Your task to perform on an android device: check data usage Image 0: 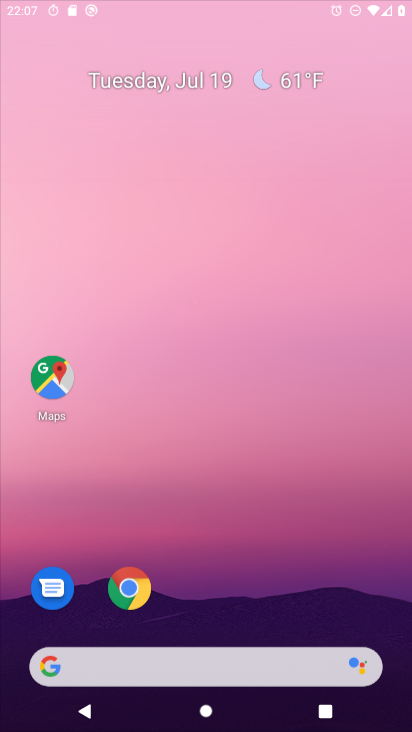
Step 0: press home button
Your task to perform on an android device: check data usage Image 1: 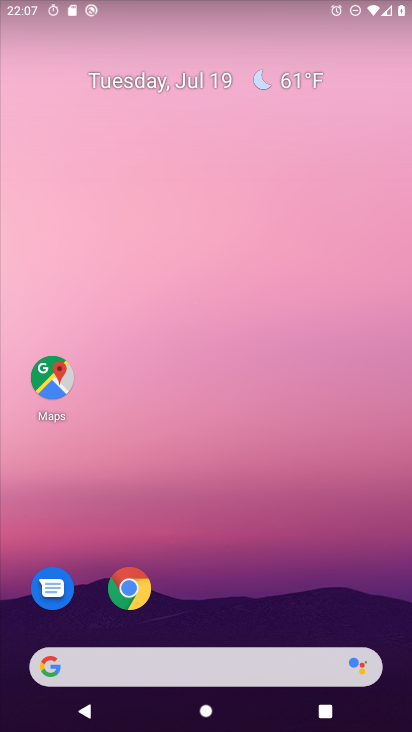
Step 1: drag from (209, 631) to (231, 88)
Your task to perform on an android device: check data usage Image 2: 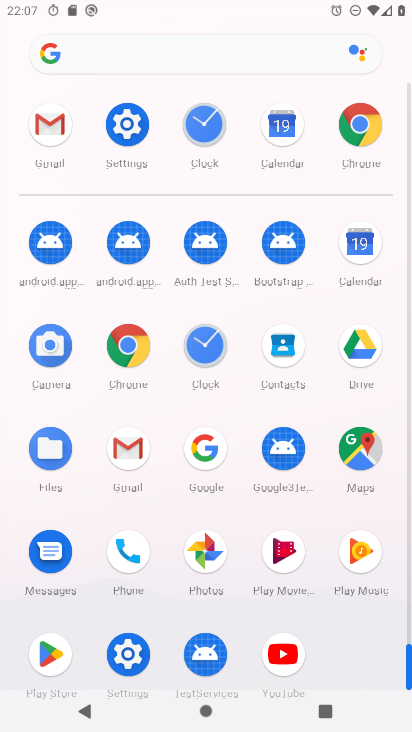
Step 2: click (123, 116)
Your task to perform on an android device: check data usage Image 3: 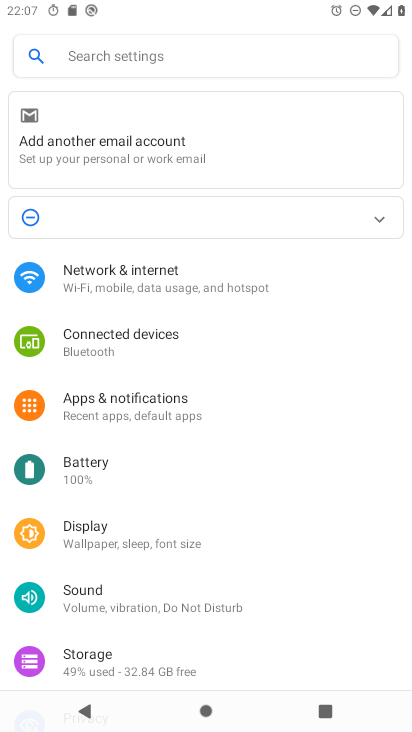
Step 3: click (201, 269)
Your task to perform on an android device: check data usage Image 4: 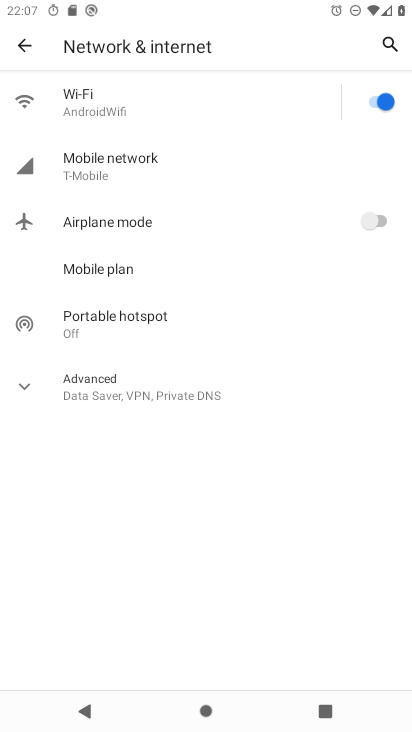
Step 4: click (139, 164)
Your task to perform on an android device: check data usage Image 5: 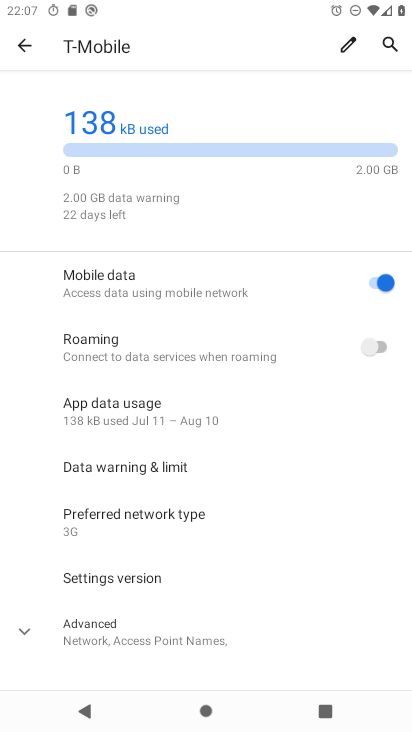
Step 5: click (167, 404)
Your task to perform on an android device: check data usage Image 6: 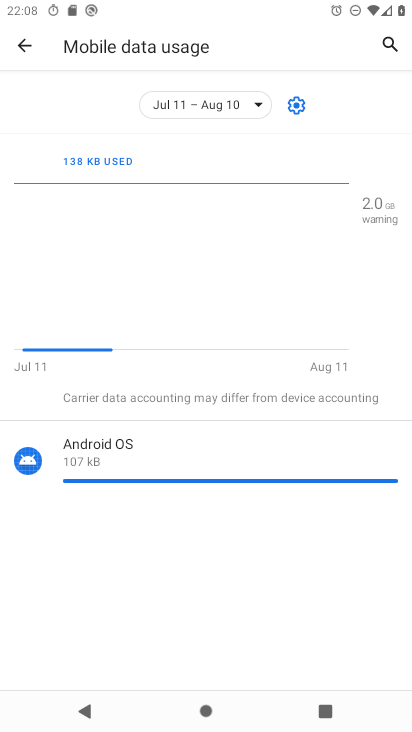
Step 6: task complete